Your task to perform on an android device: move a message to another label in the gmail app Image 0: 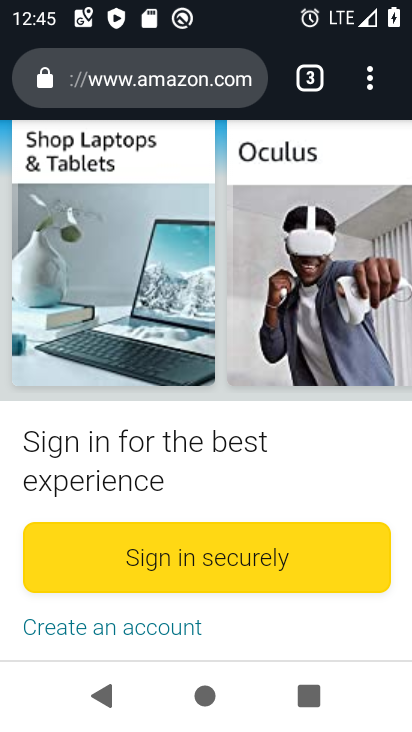
Step 0: press home button
Your task to perform on an android device: move a message to another label in the gmail app Image 1: 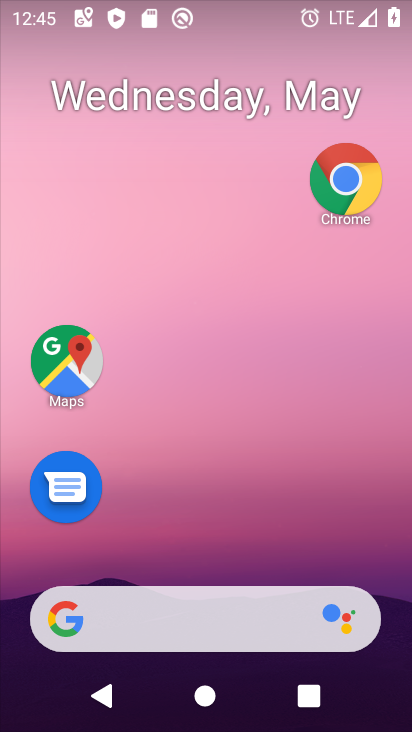
Step 1: drag from (203, 553) to (238, 35)
Your task to perform on an android device: move a message to another label in the gmail app Image 2: 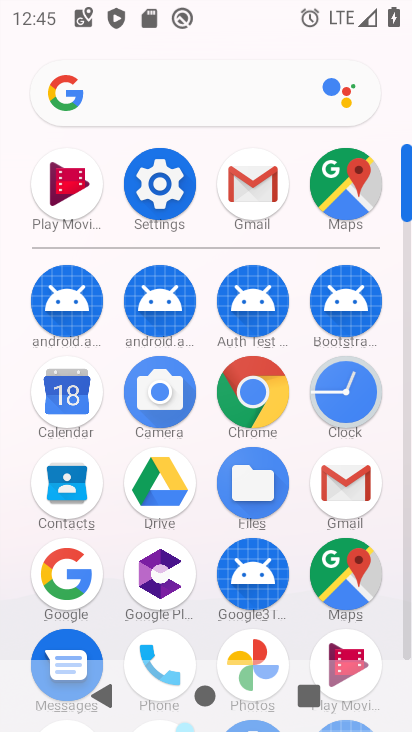
Step 2: click (353, 467)
Your task to perform on an android device: move a message to another label in the gmail app Image 3: 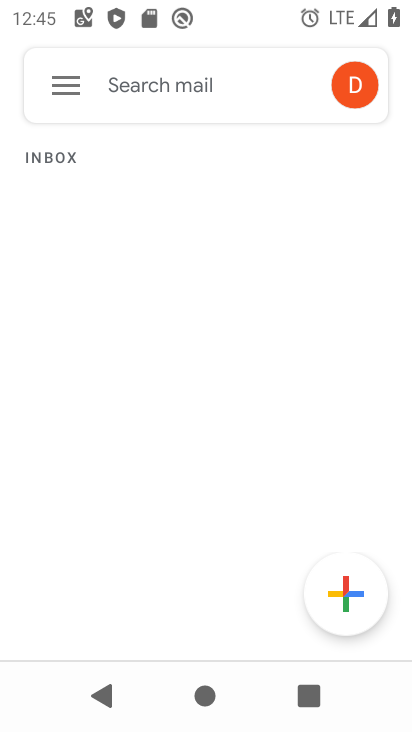
Step 3: click (63, 75)
Your task to perform on an android device: move a message to another label in the gmail app Image 4: 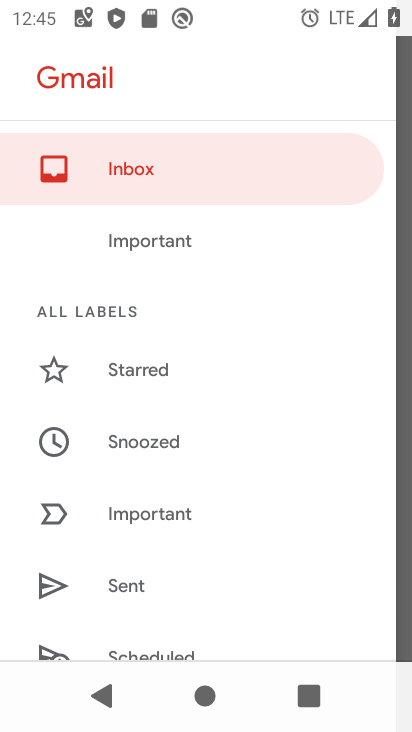
Step 4: drag from (195, 609) to (247, 122)
Your task to perform on an android device: move a message to another label in the gmail app Image 5: 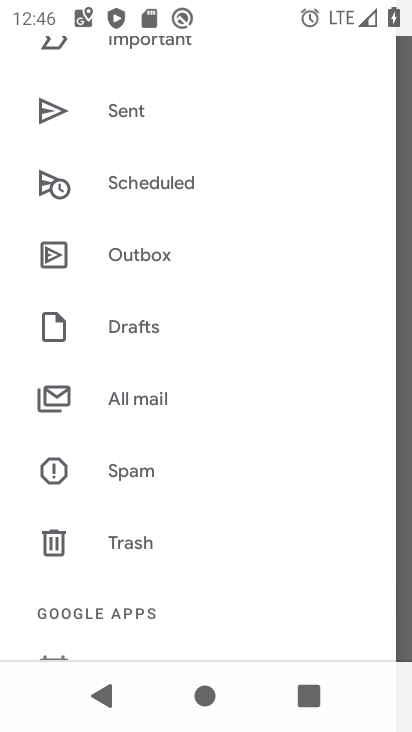
Step 5: click (123, 421)
Your task to perform on an android device: move a message to another label in the gmail app Image 6: 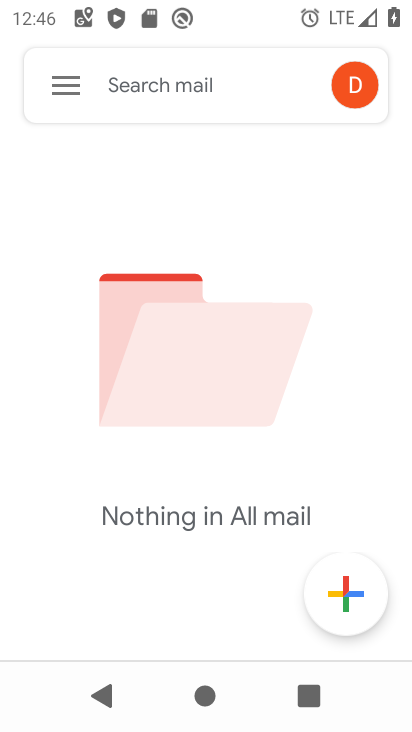
Step 6: task complete